Your task to perform on an android device: set the timer Image 0: 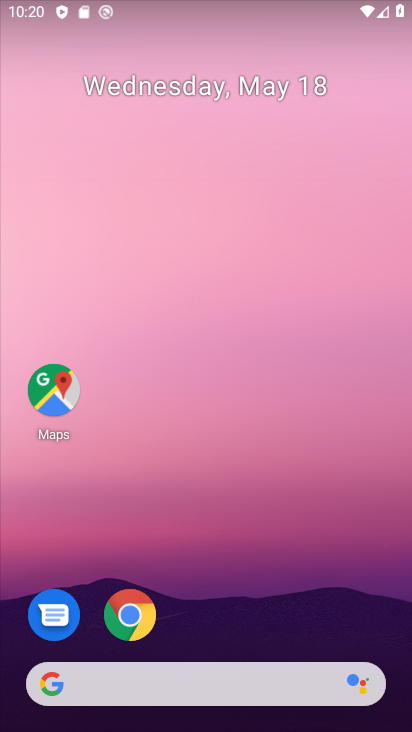
Step 0: drag from (247, 570) to (217, 11)
Your task to perform on an android device: set the timer Image 1: 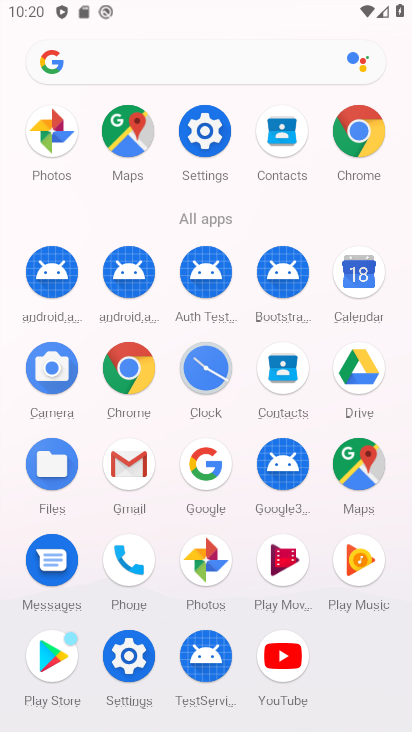
Step 1: click (201, 361)
Your task to perform on an android device: set the timer Image 2: 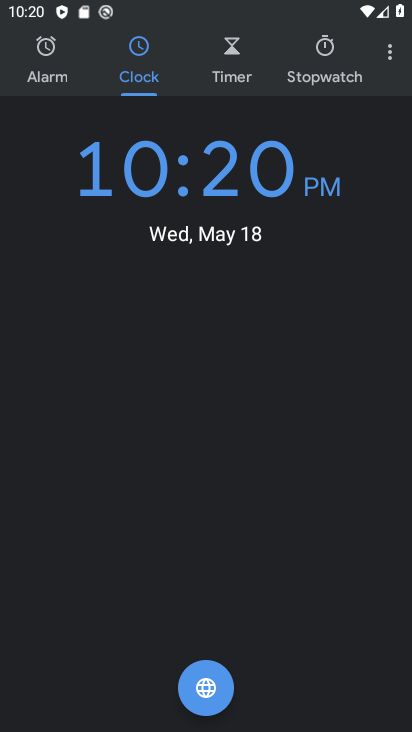
Step 2: click (231, 63)
Your task to perform on an android device: set the timer Image 3: 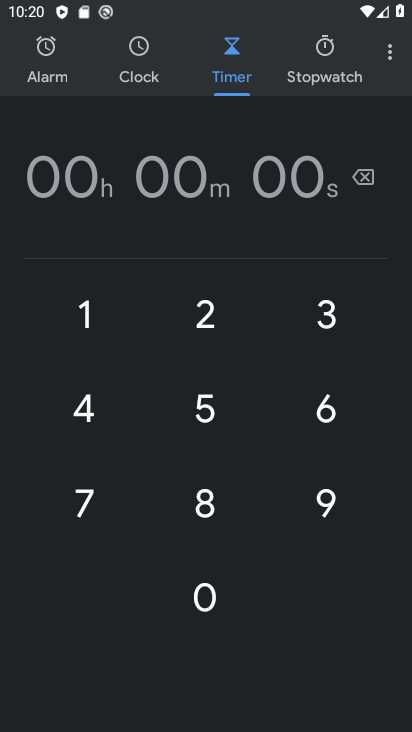
Step 3: click (92, 294)
Your task to perform on an android device: set the timer Image 4: 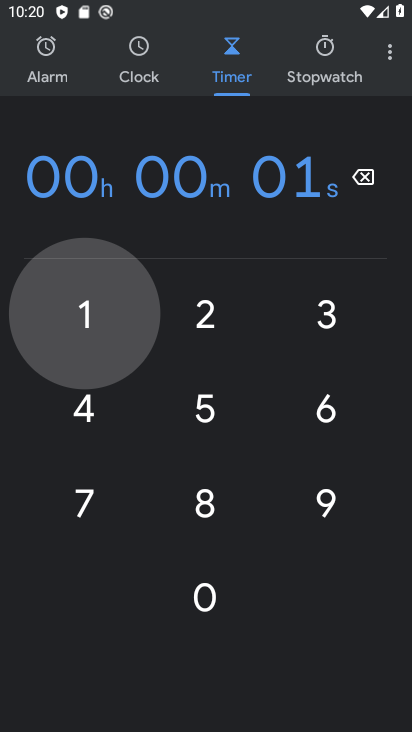
Step 4: click (191, 320)
Your task to perform on an android device: set the timer Image 5: 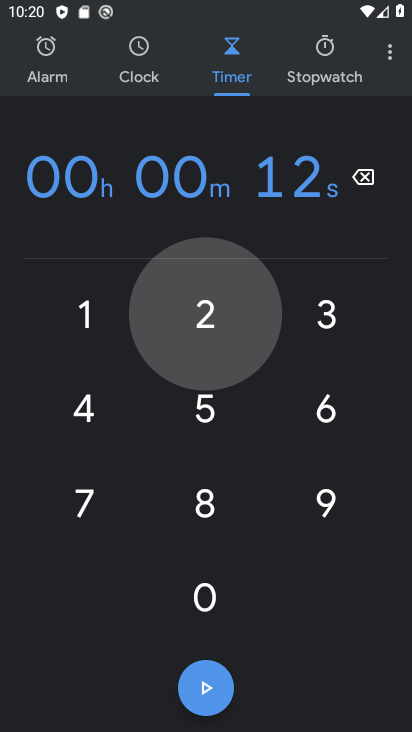
Step 5: click (90, 397)
Your task to perform on an android device: set the timer Image 6: 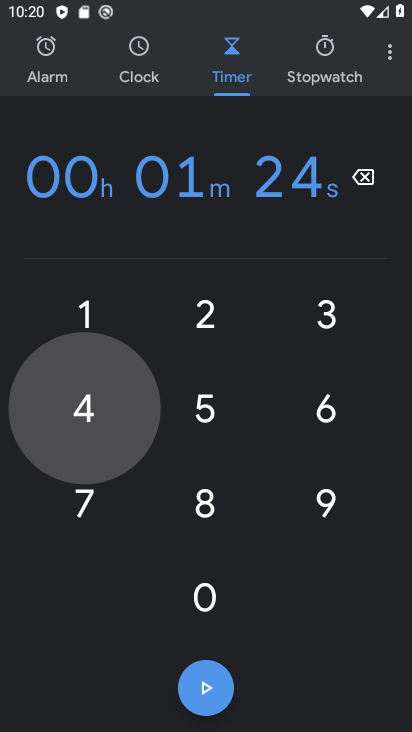
Step 6: click (196, 407)
Your task to perform on an android device: set the timer Image 7: 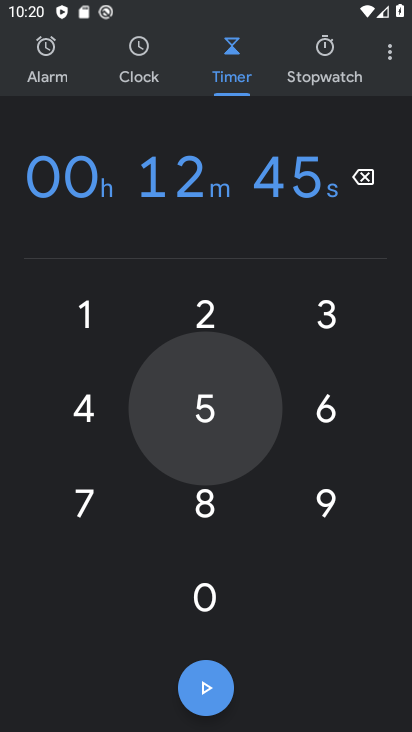
Step 7: click (82, 477)
Your task to perform on an android device: set the timer Image 8: 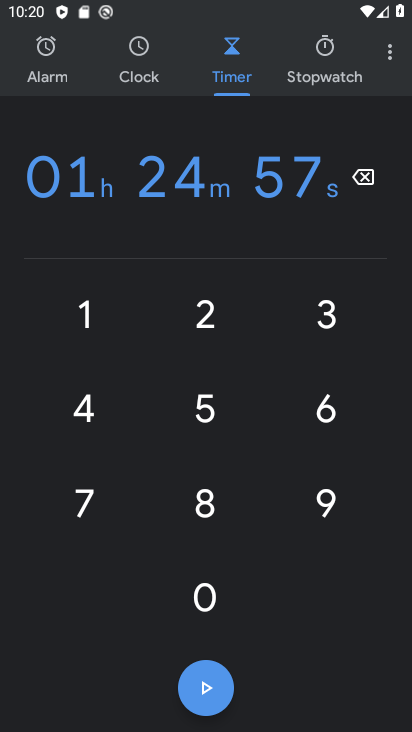
Step 8: click (201, 698)
Your task to perform on an android device: set the timer Image 9: 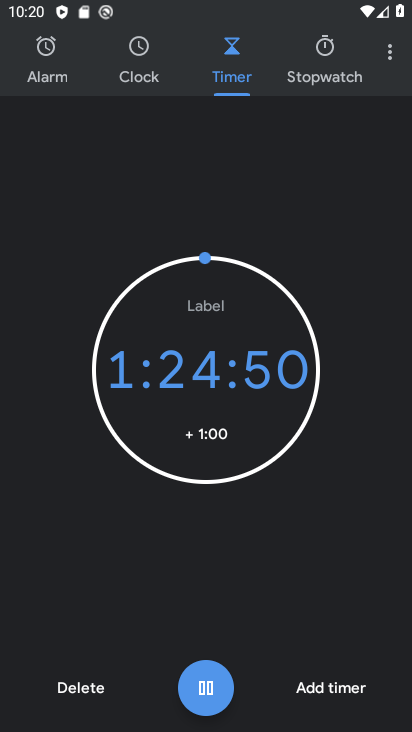
Step 9: task complete